Your task to perform on an android device: delete the emails in spam in the gmail app Image 0: 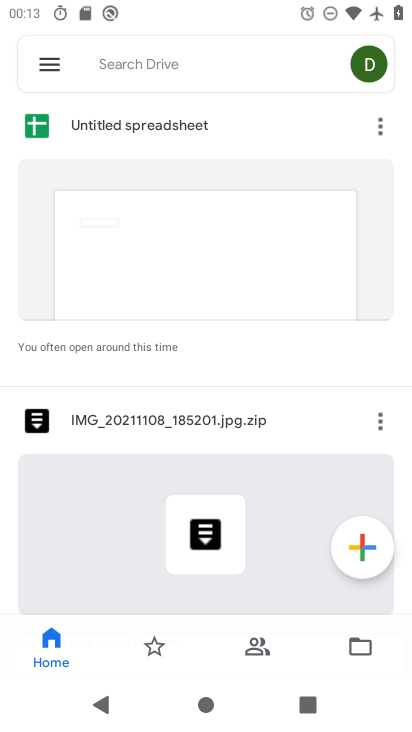
Step 0: drag from (227, 563) to (249, 183)
Your task to perform on an android device: delete the emails in spam in the gmail app Image 1: 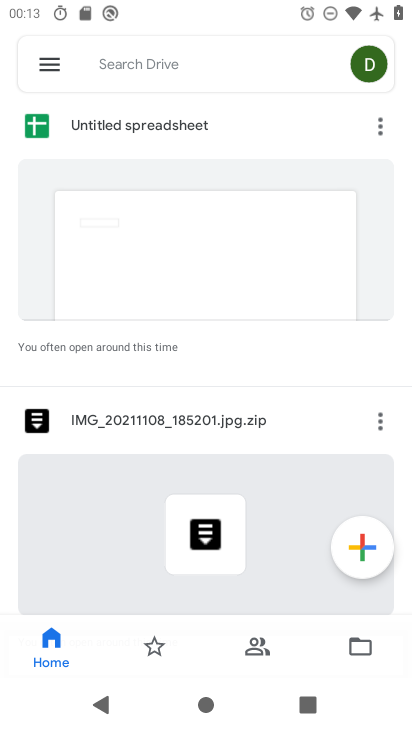
Step 1: press home button
Your task to perform on an android device: delete the emails in spam in the gmail app Image 2: 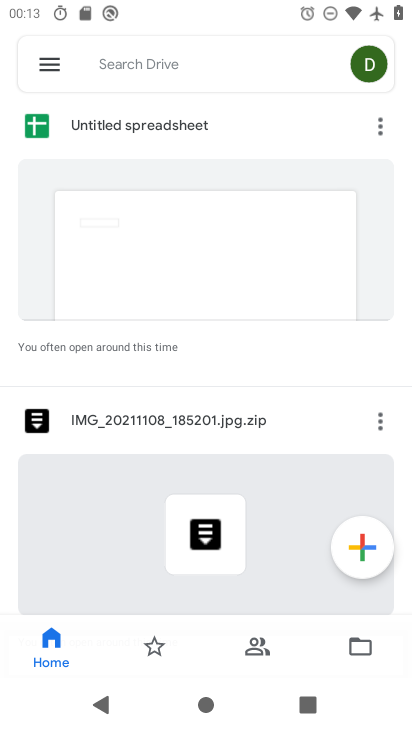
Step 2: drag from (235, 388) to (279, 100)
Your task to perform on an android device: delete the emails in spam in the gmail app Image 3: 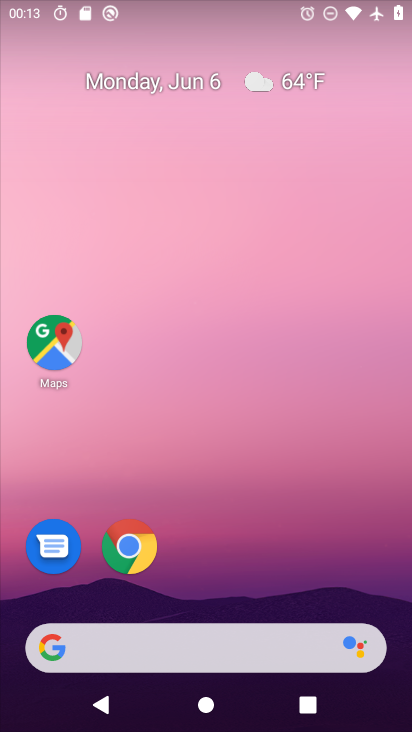
Step 3: drag from (219, 553) to (279, 83)
Your task to perform on an android device: delete the emails in spam in the gmail app Image 4: 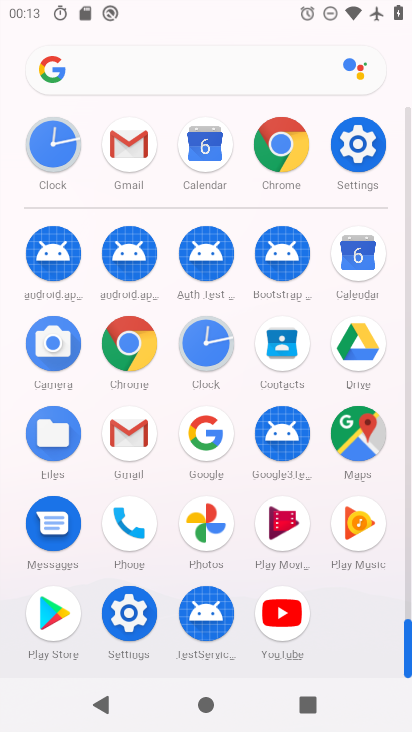
Step 4: click (128, 426)
Your task to perform on an android device: delete the emails in spam in the gmail app Image 5: 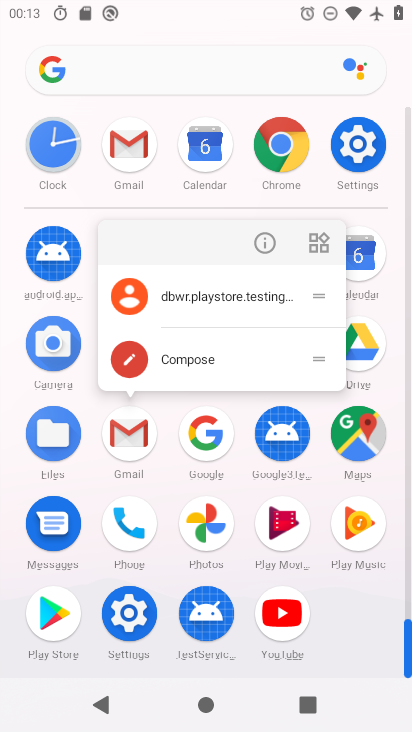
Step 5: click (269, 237)
Your task to perform on an android device: delete the emails in spam in the gmail app Image 6: 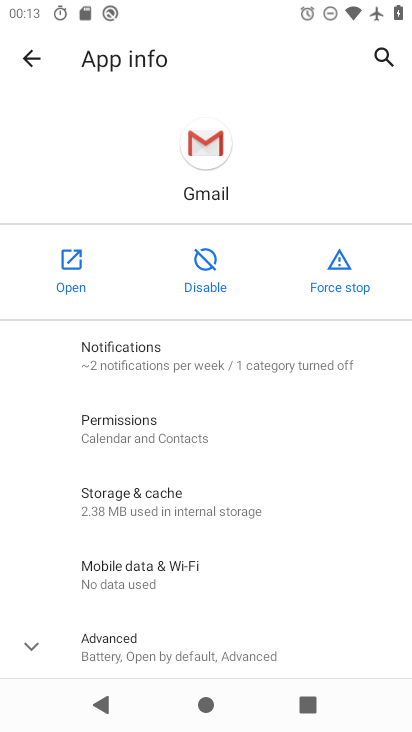
Step 6: click (49, 257)
Your task to perform on an android device: delete the emails in spam in the gmail app Image 7: 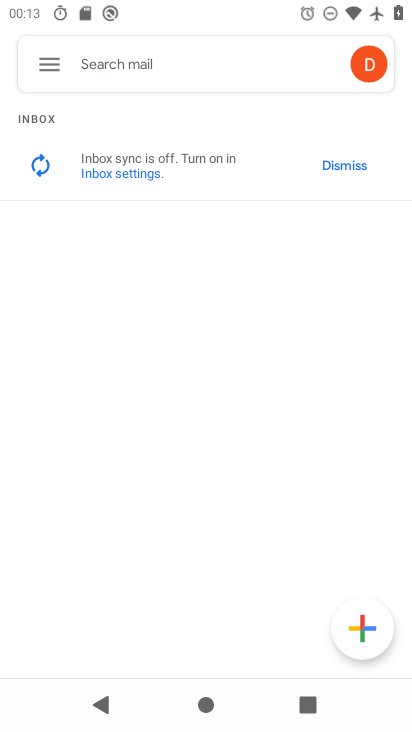
Step 7: click (58, 57)
Your task to perform on an android device: delete the emails in spam in the gmail app Image 8: 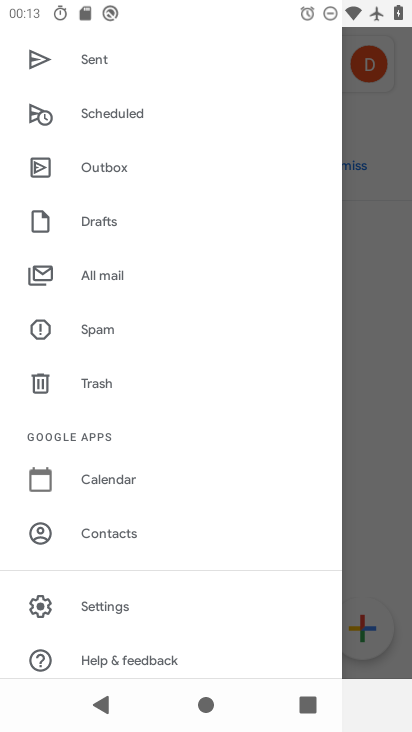
Step 8: drag from (170, 522) to (178, 157)
Your task to perform on an android device: delete the emails in spam in the gmail app Image 9: 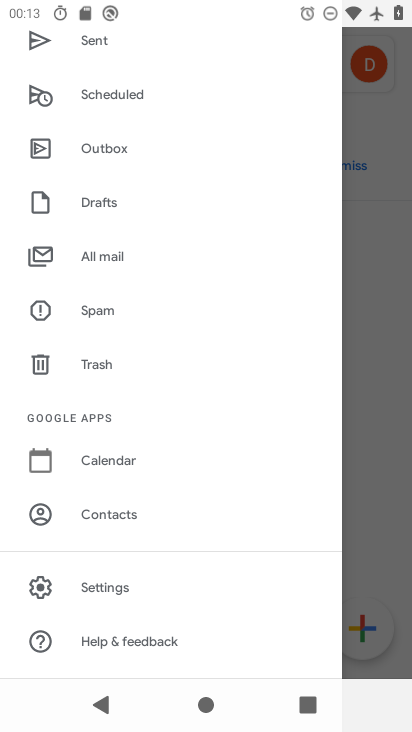
Step 9: click (114, 308)
Your task to perform on an android device: delete the emails in spam in the gmail app Image 10: 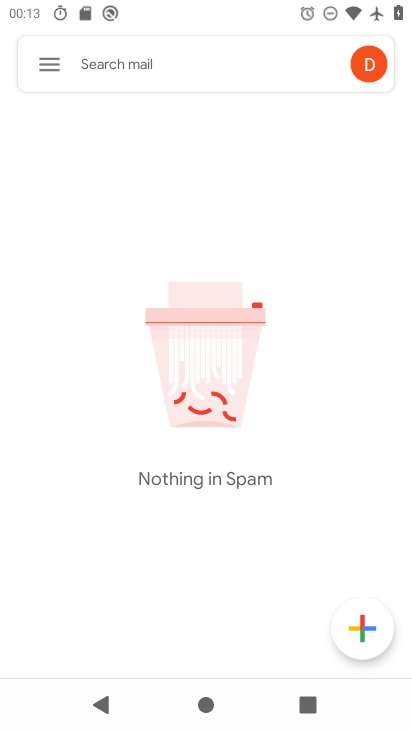
Step 10: drag from (236, 472) to (236, 261)
Your task to perform on an android device: delete the emails in spam in the gmail app Image 11: 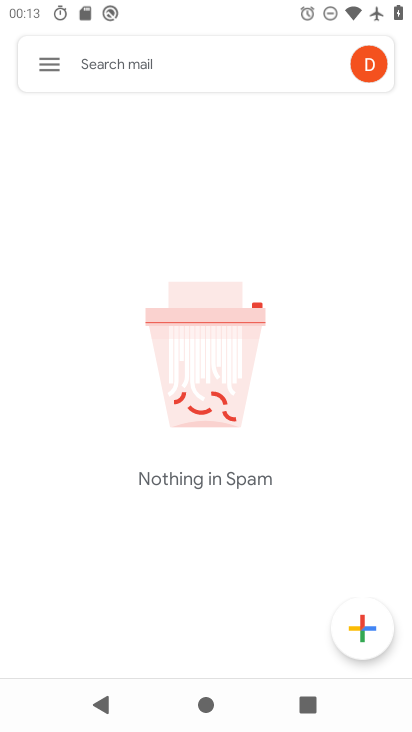
Step 11: click (52, 58)
Your task to perform on an android device: delete the emails in spam in the gmail app Image 12: 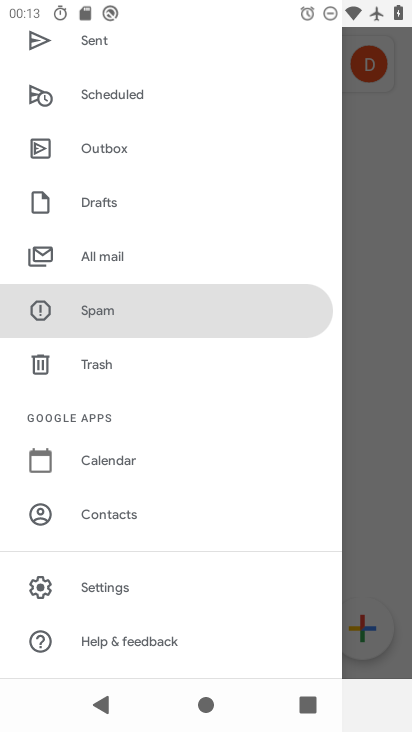
Step 12: click (128, 308)
Your task to perform on an android device: delete the emails in spam in the gmail app Image 13: 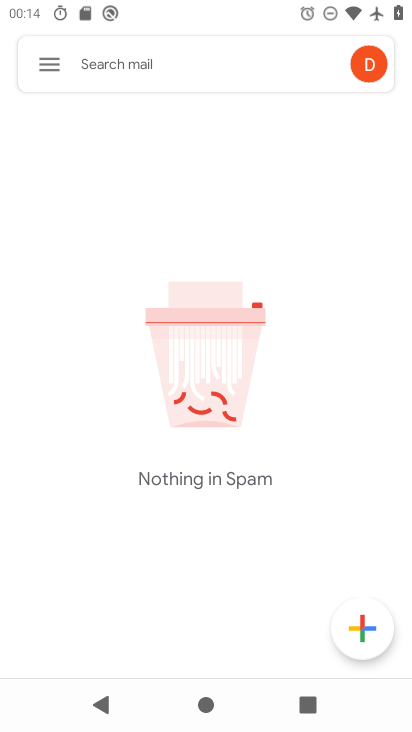
Step 13: drag from (224, 483) to (231, 294)
Your task to perform on an android device: delete the emails in spam in the gmail app Image 14: 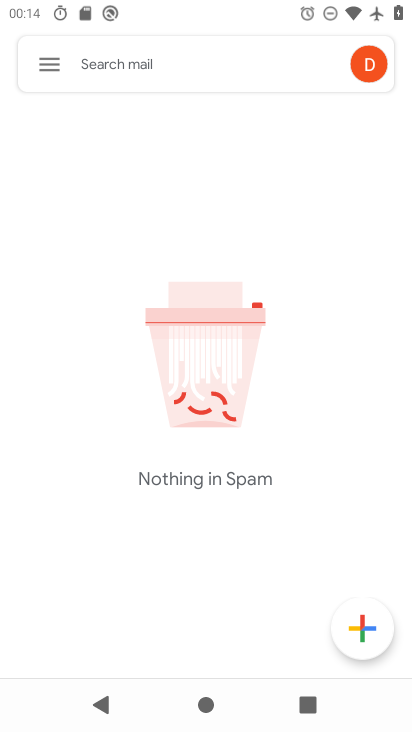
Step 14: click (47, 49)
Your task to perform on an android device: delete the emails in spam in the gmail app Image 15: 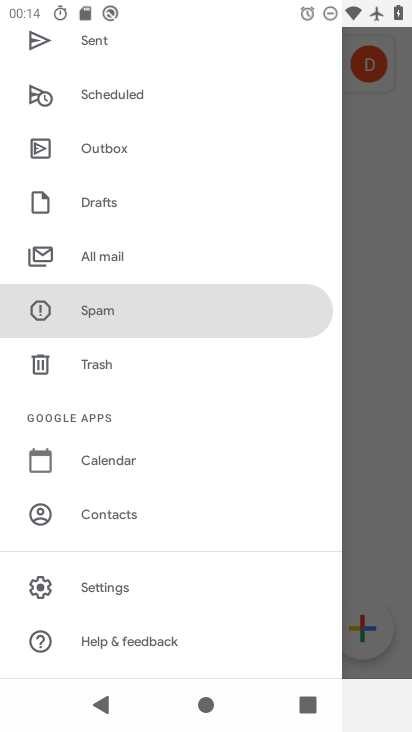
Step 15: drag from (190, 547) to (200, 177)
Your task to perform on an android device: delete the emails in spam in the gmail app Image 16: 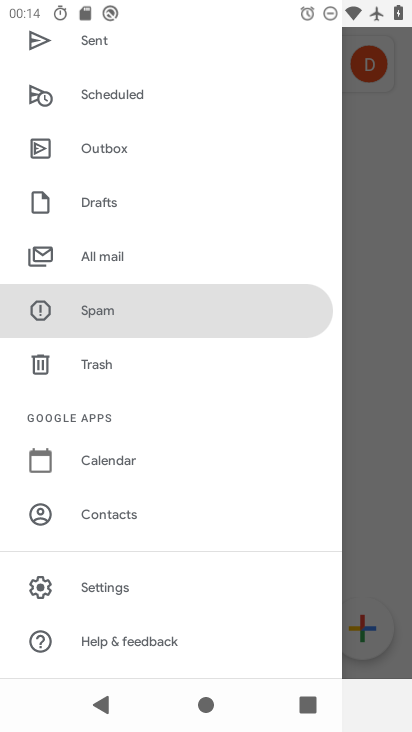
Step 16: click (114, 303)
Your task to perform on an android device: delete the emails in spam in the gmail app Image 17: 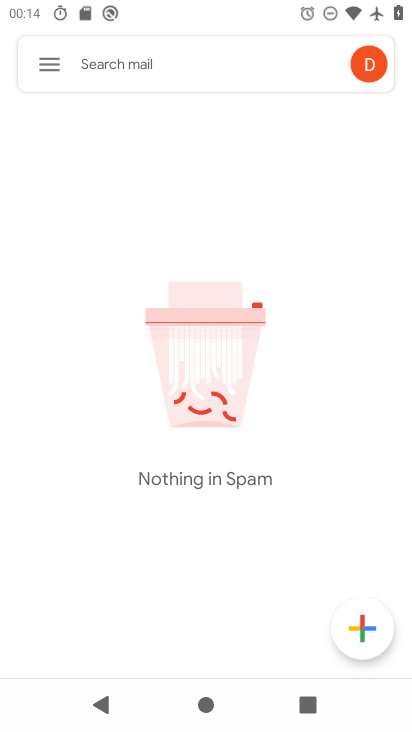
Step 17: task complete